Your task to perform on an android device: Look up the best rated desk lamps on IKEA Image 0: 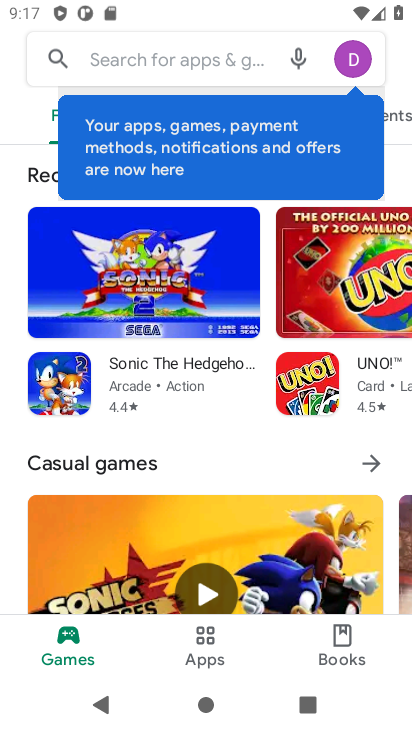
Step 0: press home button
Your task to perform on an android device: Look up the best rated desk lamps on IKEA Image 1: 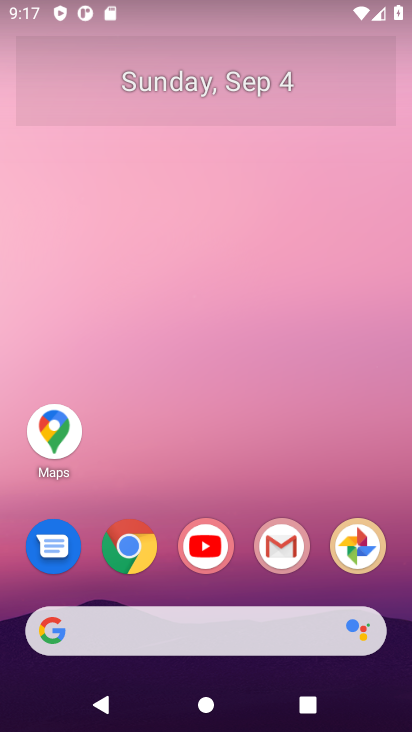
Step 1: click (120, 550)
Your task to perform on an android device: Look up the best rated desk lamps on IKEA Image 2: 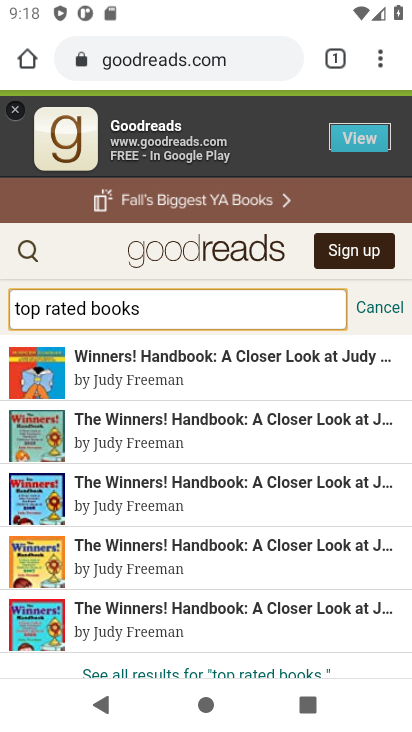
Step 2: click (150, 62)
Your task to perform on an android device: Look up the best rated desk lamps on IKEA Image 3: 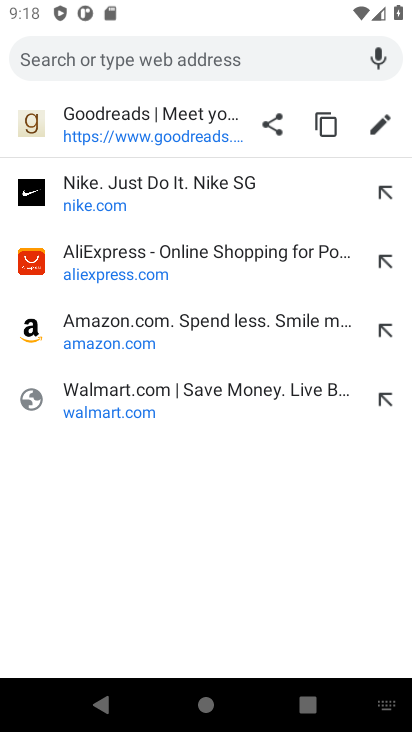
Step 3: type "ikea"
Your task to perform on an android device: Look up the best rated desk lamps on IKEA Image 4: 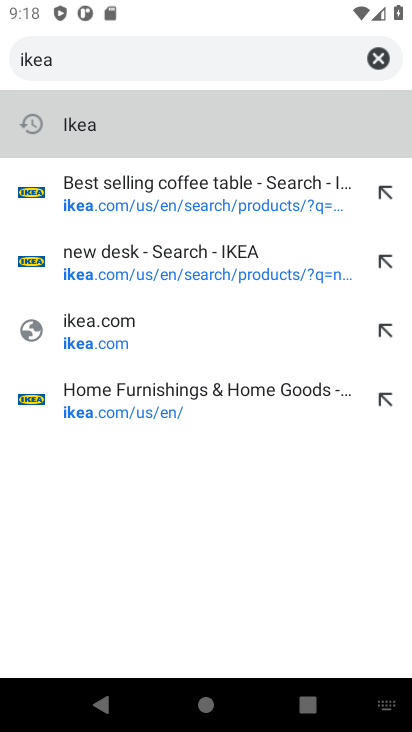
Step 4: click (57, 125)
Your task to perform on an android device: Look up the best rated desk lamps on IKEA Image 5: 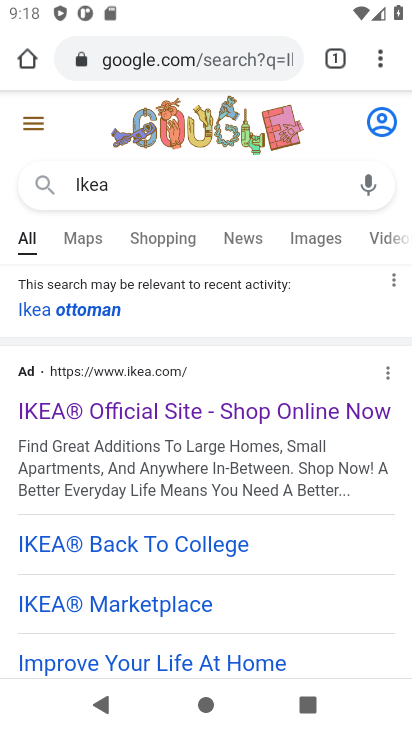
Step 5: drag from (137, 549) to (149, 113)
Your task to perform on an android device: Look up the best rated desk lamps on IKEA Image 6: 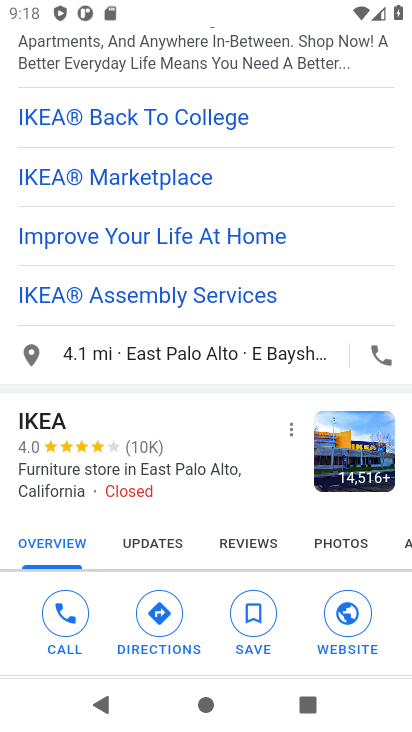
Step 6: drag from (92, 457) to (123, 116)
Your task to perform on an android device: Look up the best rated desk lamps on IKEA Image 7: 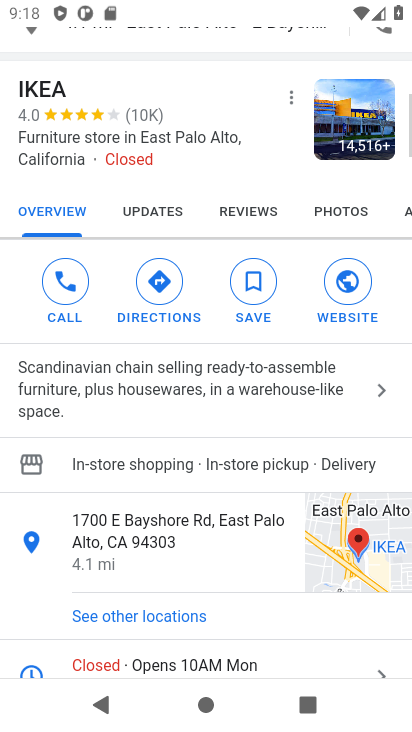
Step 7: drag from (79, 245) to (83, 133)
Your task to perform on an android device: Look up the best rated desk lamps on IKEA Image 8: 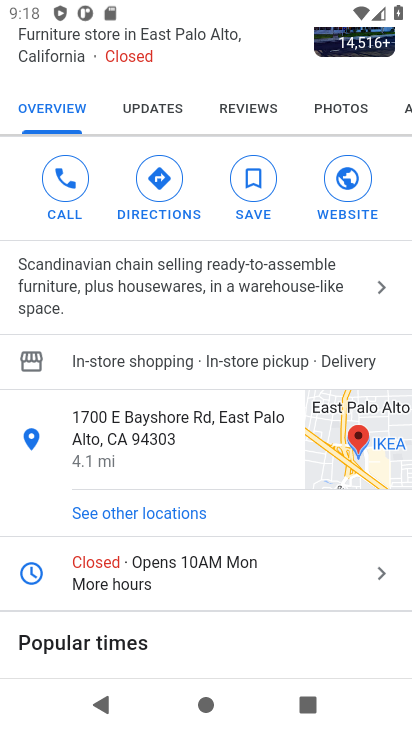
Step 8: drag from (66, 514) to (84, 143)
Your task to perform on an android device: Look up the best rated desk lamps on IKEA Image 9: 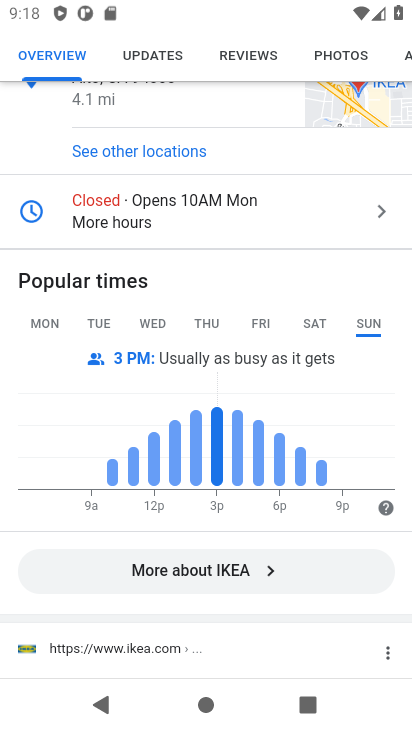
Step 9: drag from (153, 492) to (158, 83)
Your task to perform on an android device: Look up the best rated desk lamps on IKEA Image 10: 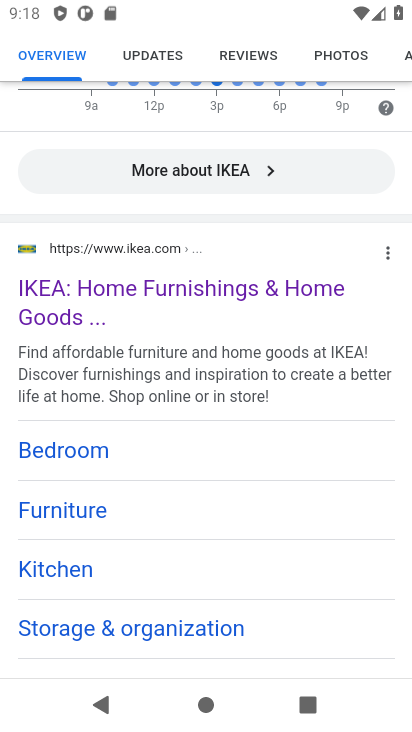
Step 10: click (51, 298)
Your task to perform on an android device: Look up the best rated desk lamps on IKEA Image 11: 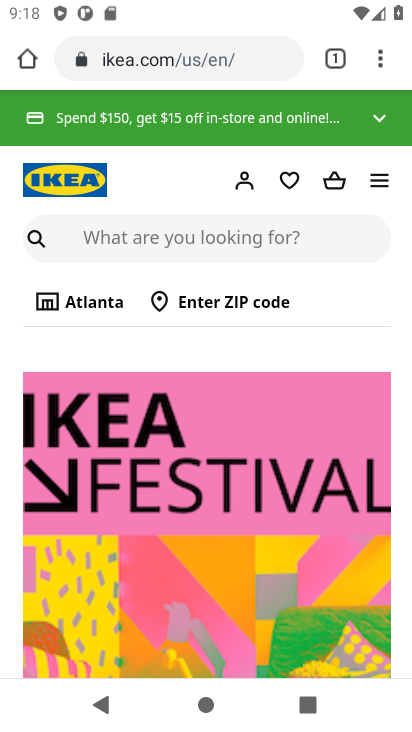
Step 11: click (39, 240)
Your task to perform on an android device: Look up the best rated desk lamps on IKEA Image 12: 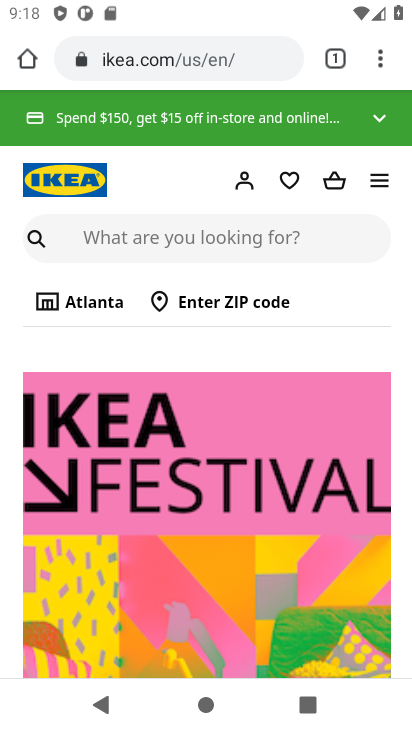
Step 12: click (86, 241)
Your task to perform on an android device: Look up the best rated desk lamps on IKEA Image 13: 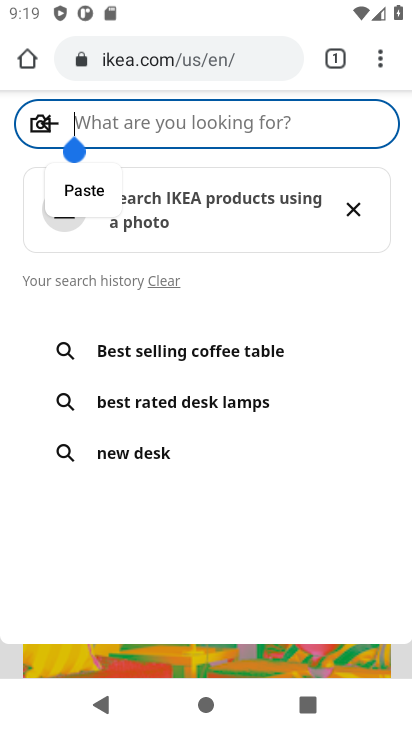
Step 13: type "best rated desk lamps"
Your task to perform on an android device: Look up the best rated desk lamps on IKEA Image 14: 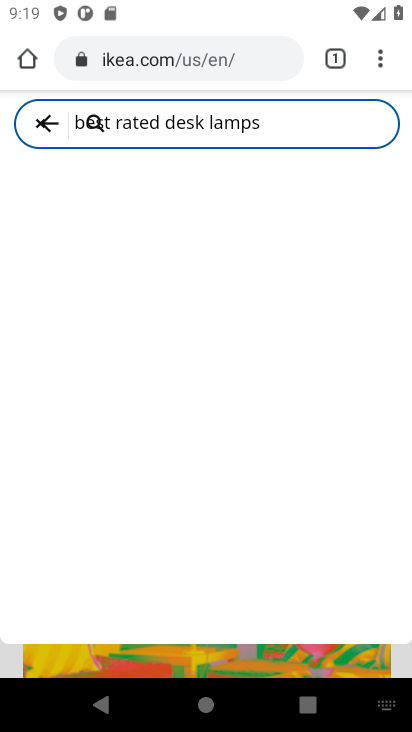
Step 14: click (98, 124)
Your task to perform on an android device: Look up the best rated desk lamps on IKEA Image 15: 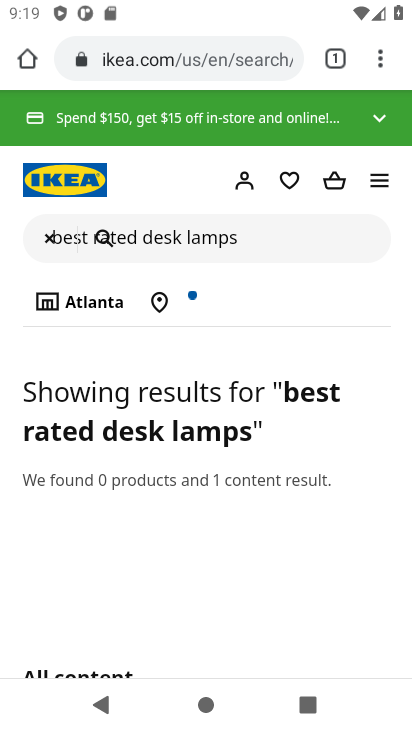
Step 15: task complete